Your task to perform on an android device: Go to Amazon Image 0: 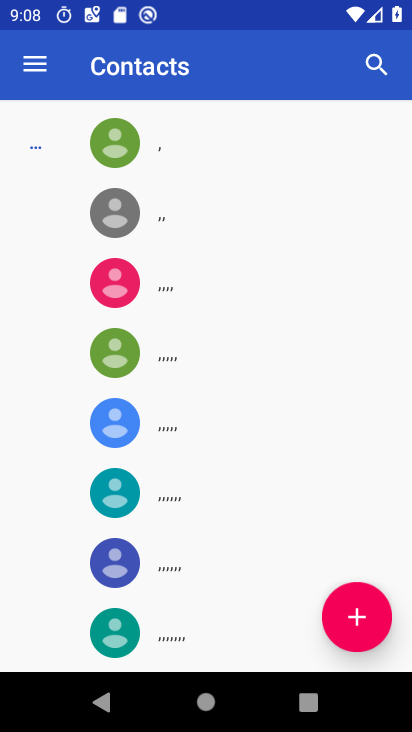
Step 0: press home button
Your task to perform on an android device: Go to Amazon Image 1: 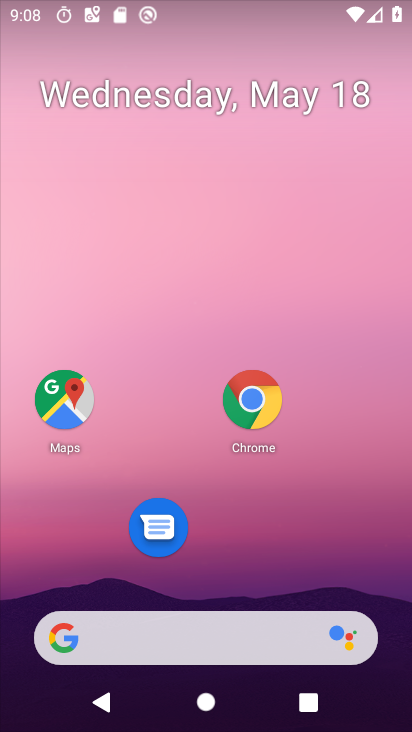
Step 1: click (247, 409)
Your task to perform on an android device: Go to Amazon Image 2: 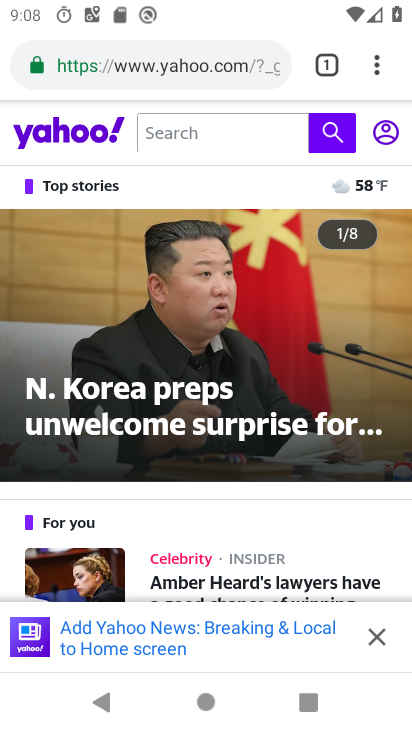
Step 2: press back button
Your task to perform on an android device: Go to Amazon Image 3: 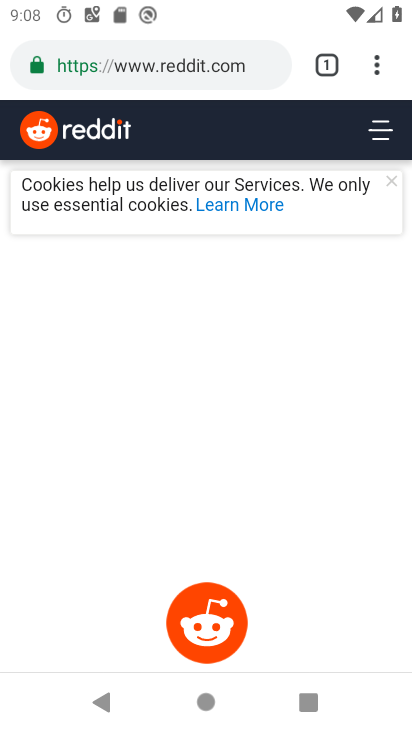
Step 3: press back button
Your task to perform on an android device: Go to Amazon Image 4: 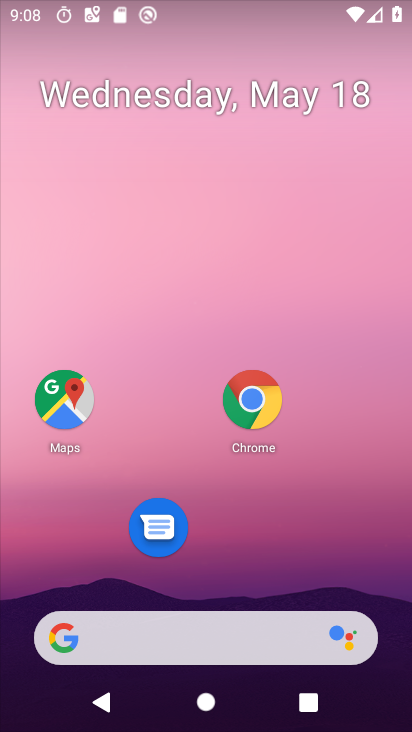
Step 4: click (257, 412)
Your task to perform on an android device: Go to Amazon Image 5: 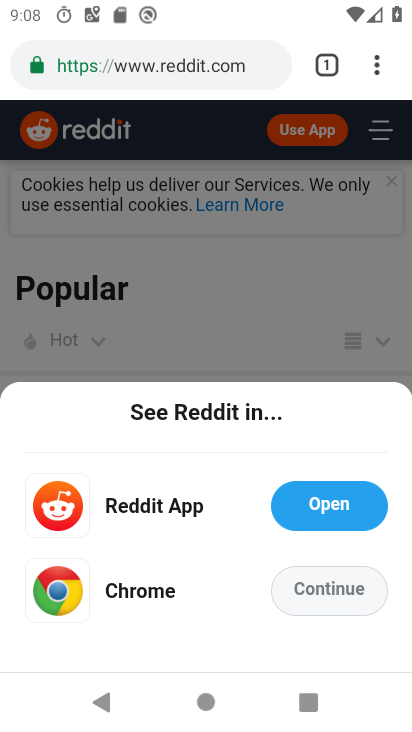
Step 5: click (323, 592)
Your task to perform on an android device: Go to Amazon Image 6: 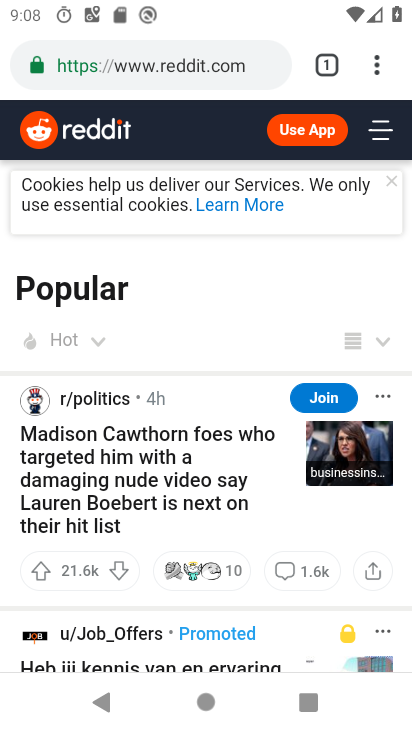
Step 6: click (198, 68)
Your task to perform on an android device: Go to Amazon Image 7: 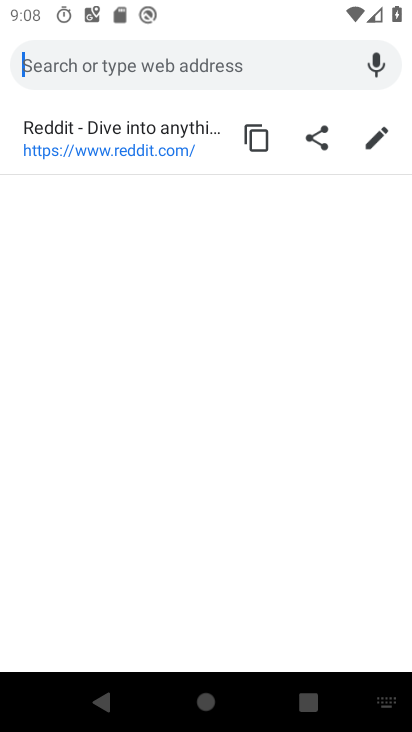
Step 7: type "www.amazon.com"
Your task to perform on an android device: Go to Amazon Image 8: 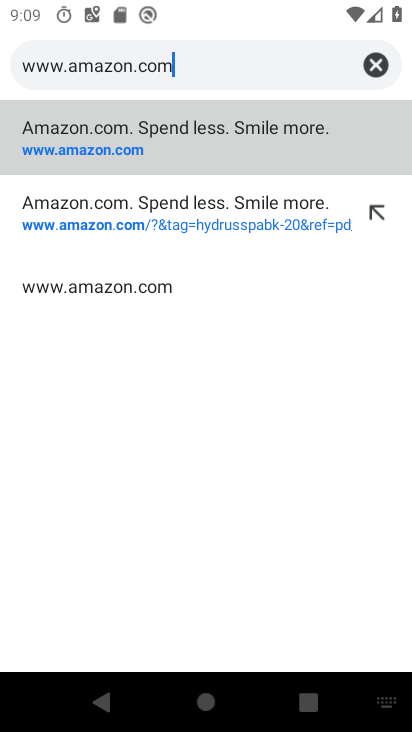
Step 8: click (60, 151)
Your task to perform on an android device: Go to Amazon Image 9: 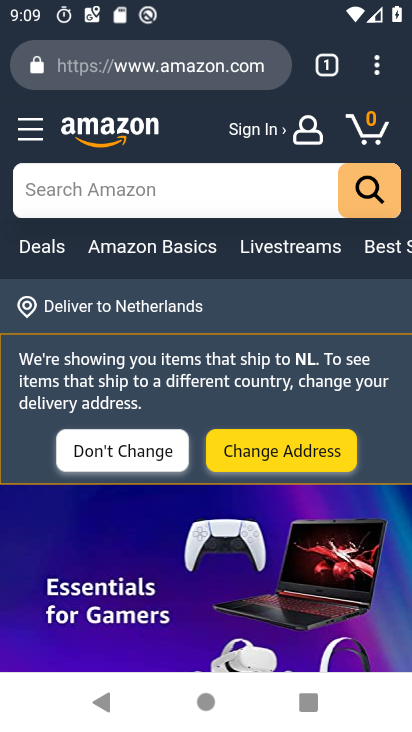
Step 9: task complete